Your task to perform on an android device: Add amazon basics triple a to the cart on ebay, then select checkout. Image 0: 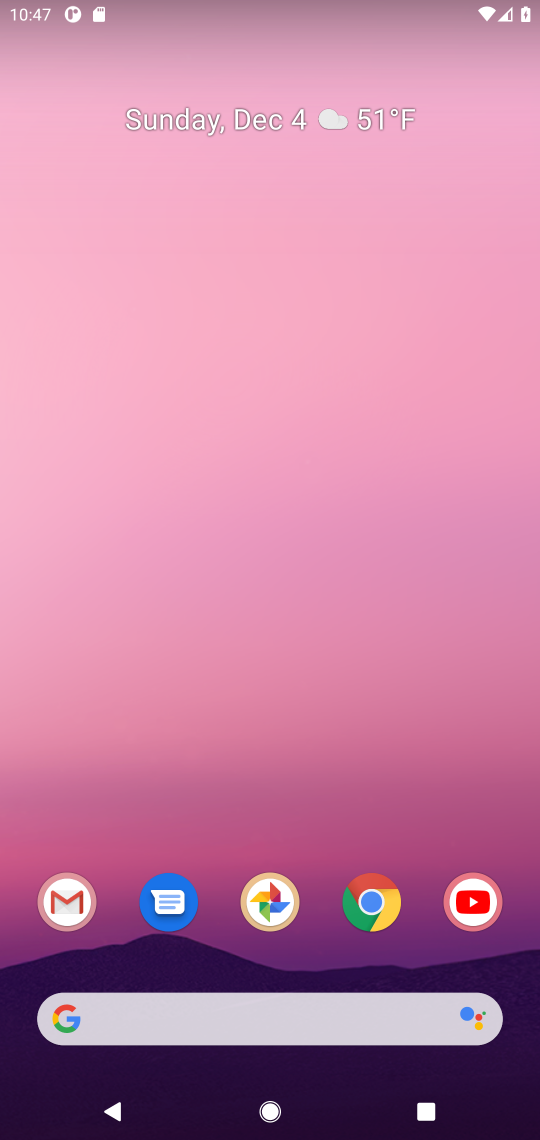
Step 0: click (357, 918)
Your task to perform on an android device: Add amazon basics triple a to the cart on ebay, then select checkout. Image 1: 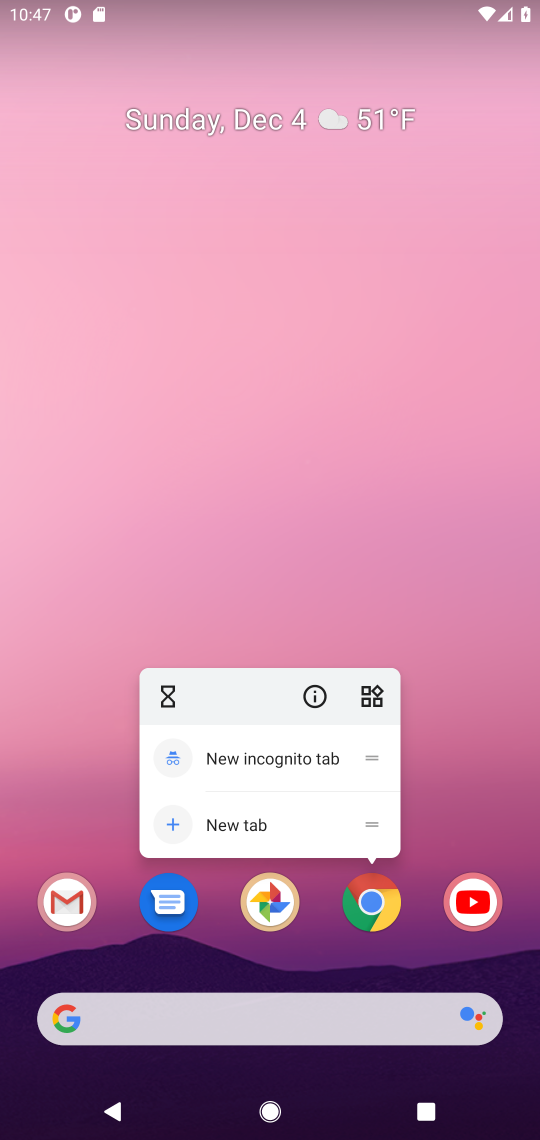
Step 1: click (382, 914)
Your task to perform on an android device: Add amazon basics triple a to the cart on ebay, then select checkout. Image 2: 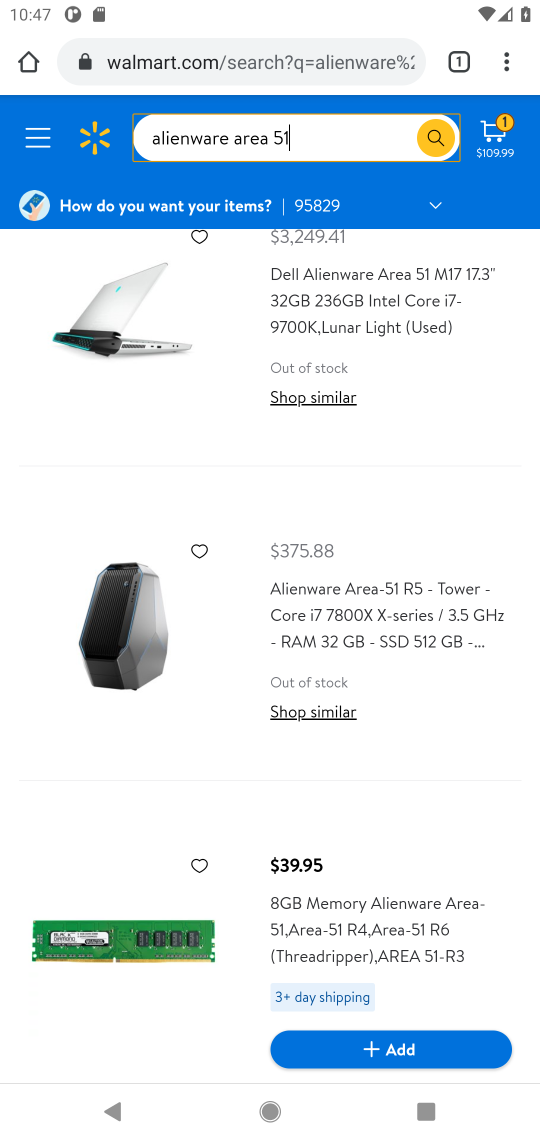
Step 2: click (212, 53)
Your task to perform on an android device: Add amazon basics triple a to the cart on ebay, then select checkout. Image 3: 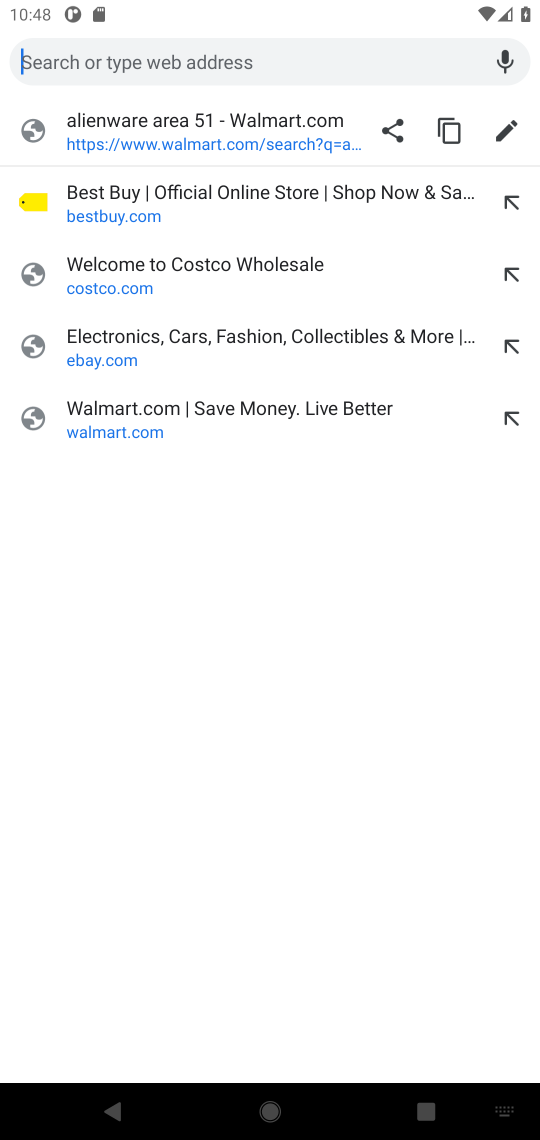
Step 3: click (102, 357)
Your task to perform on an android device: Add amazon basics triple a to the cart on ebay, then select checkout. Image 4: 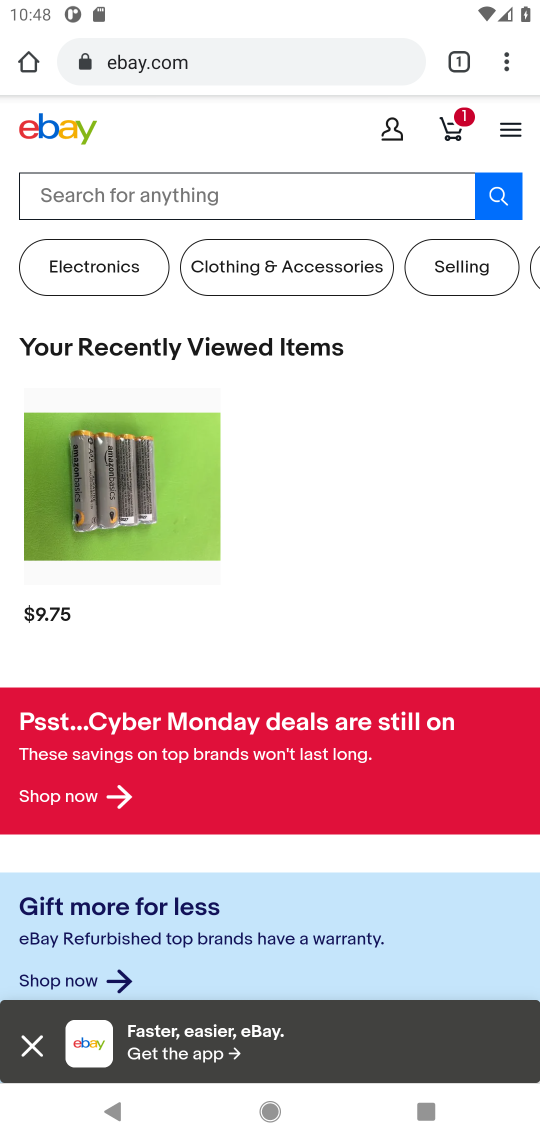
Step 4: click (329, 175)
Your task to perform on an android device: Add amazon basics triple a to the cart on ebay, then select checkout. Image 5: 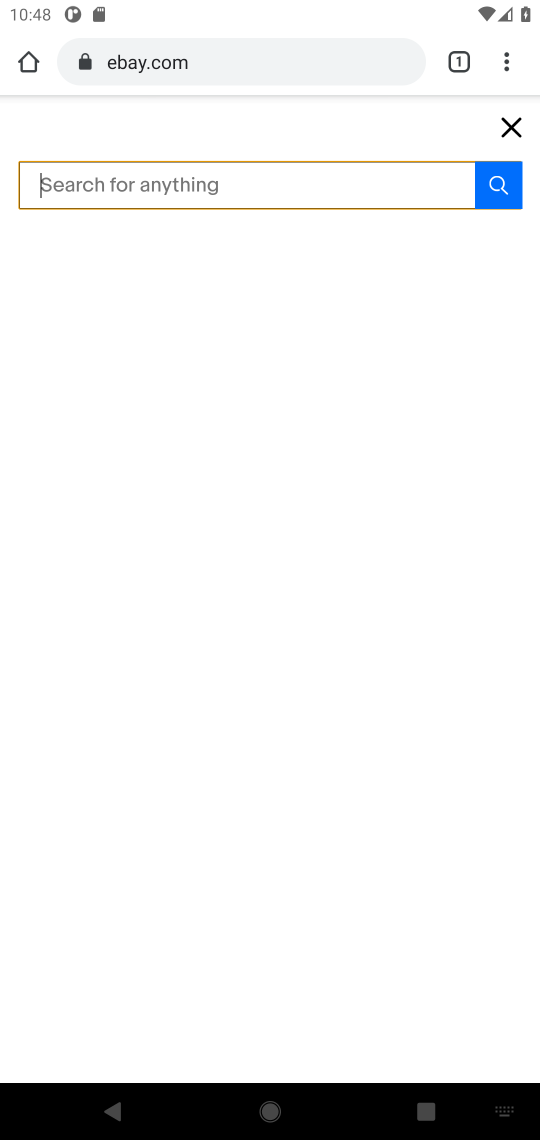
Step 5: type " amazon basics triple a "
Your task to perform on an android device: Add amazon basics triple a to the cart on ebay, then select checkout. Image 6: 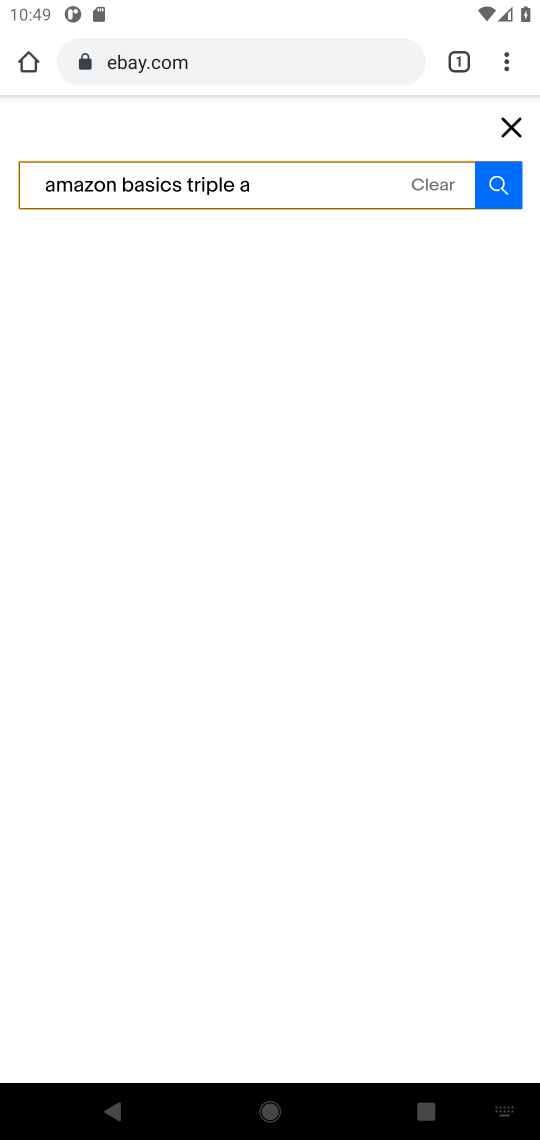
Step 6: click (478, 196)
Your task to perform on an android device: Add amazon basics triple a to the cart on ebay, then select checkout. Image 7: 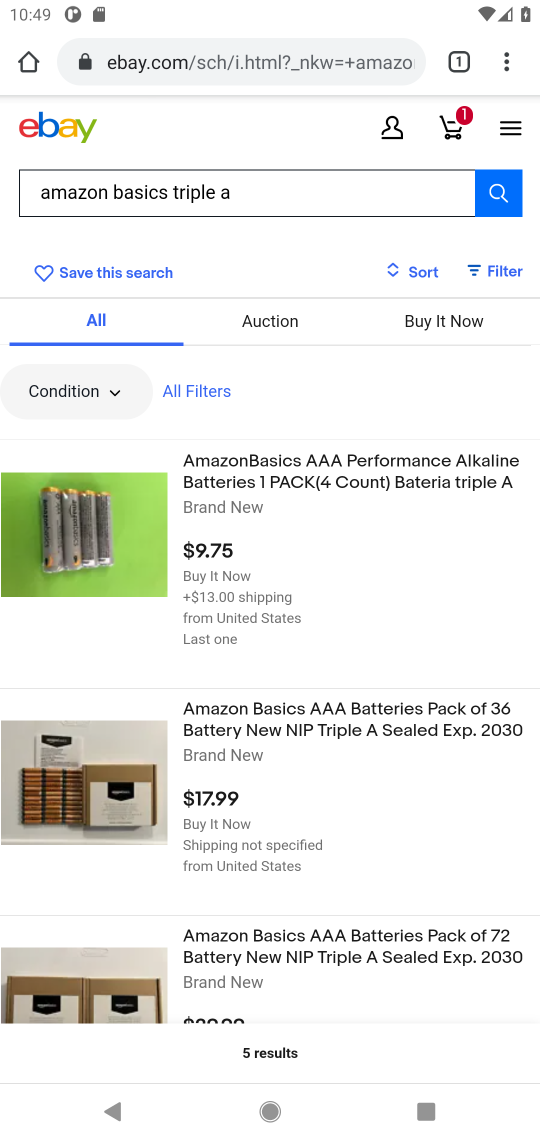
Step 7: click (481, 492)
Your task to perform on an android device: Add amazon basics triple a to the cart on ebay, then select checkout. Image 8: 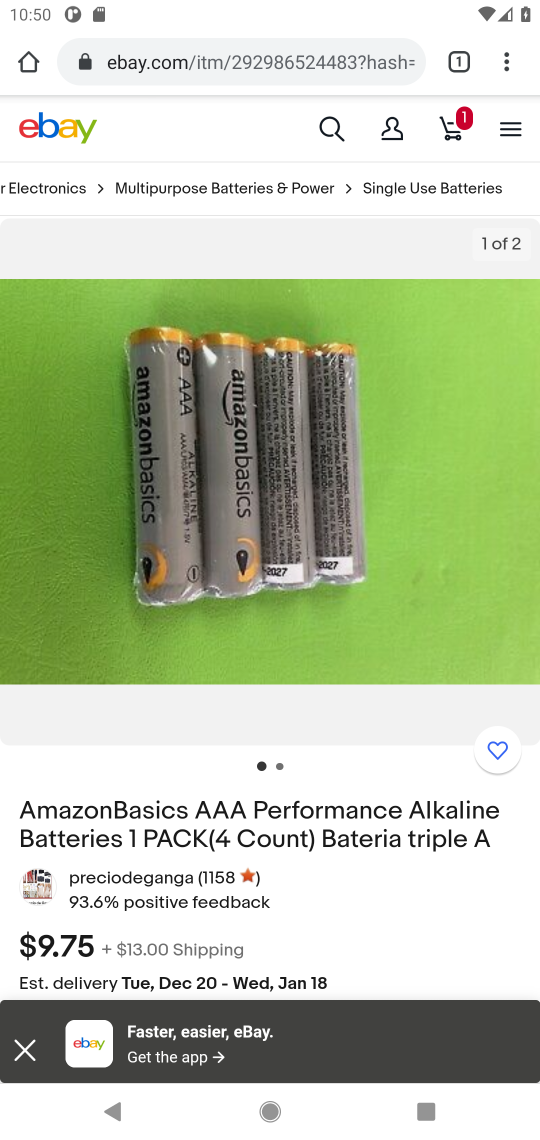
Step 8: drag from (368, 882) to (369, 240)
Your task to perform on an android device: Add amazon basics triple a to the cart on ebay, then select checkout. Image 9: 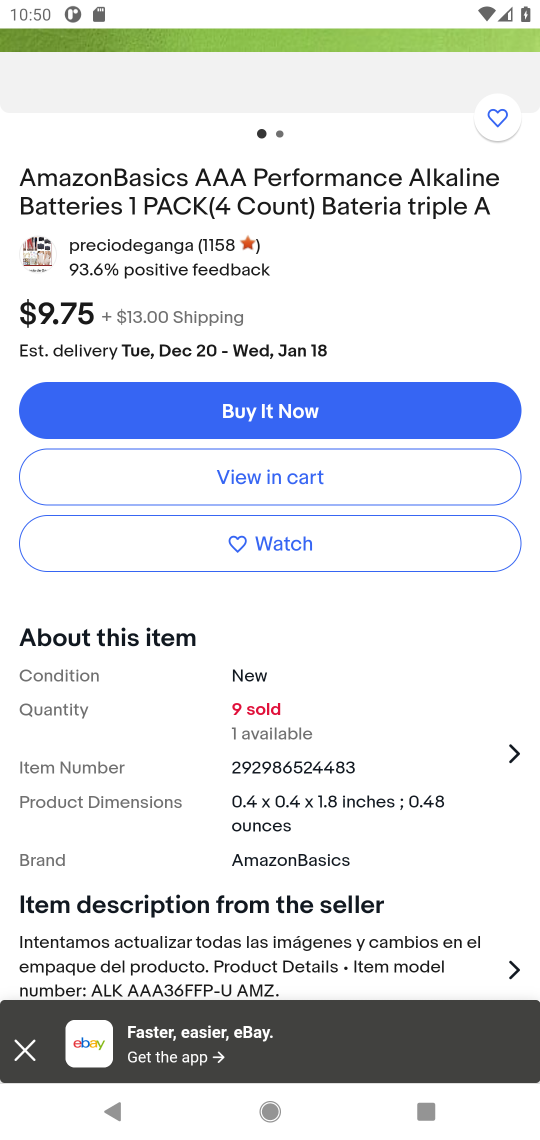
Step 9: drag from (356, 608) to (339, 255)
Your task to perform on an android device: Add amazon basics triple a to the cart on ebay, then select checkout. Image 10: 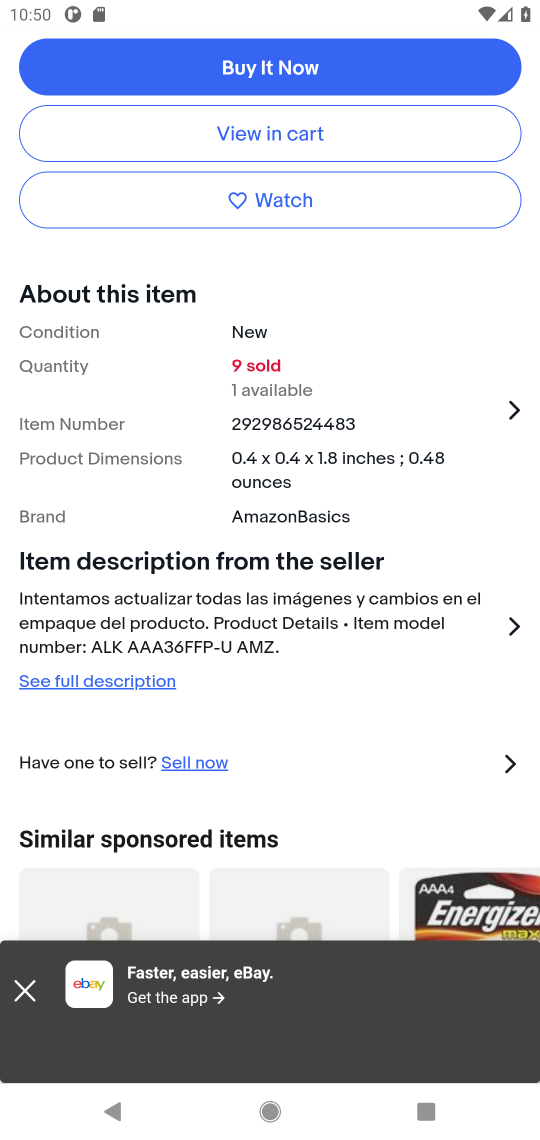
Step 10: click (312, 127)
Your task to perform on an android device: Add amazon basics triple a to the cart on ebay, then select checkout. Image 11: 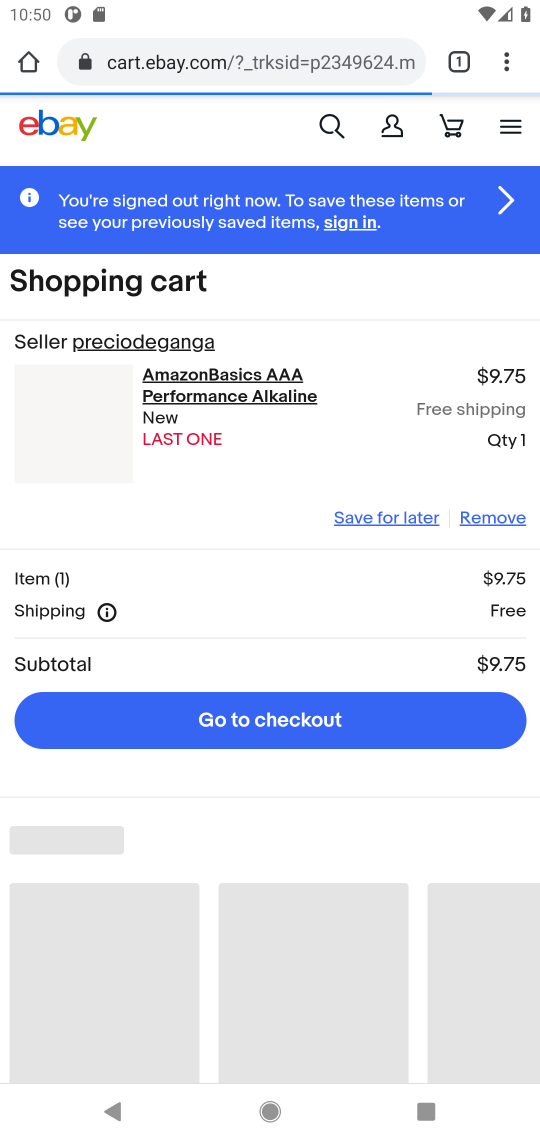
Step 11: click (312, 127)
Your task to perform on an android device: Add amazon basics triple a to the cart on ebay, then select checkout. Image 12: 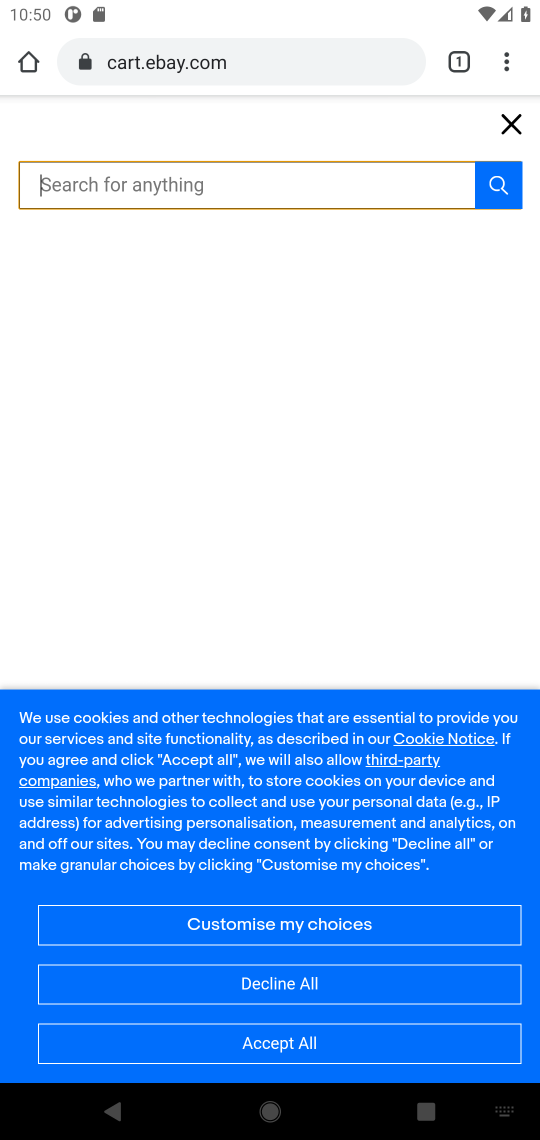
Step 12: click (503, 131)
Your task to perform on an android device: Add amazon basics triple a to the cart on ebay, then select checkout. Image 13: 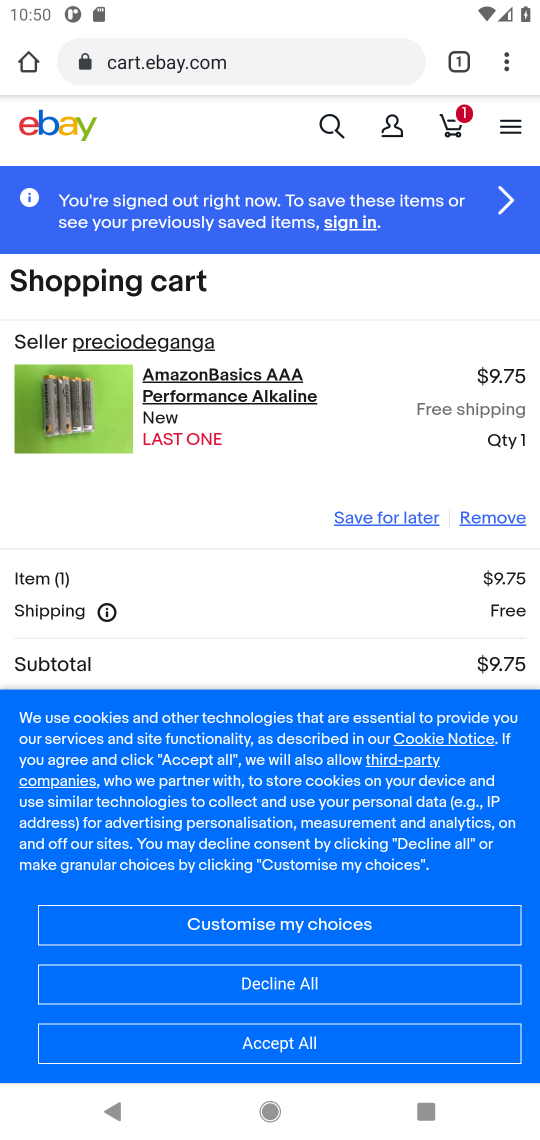
Step 13: click (503, 131)
Your task to perform on an android device: Add amazon basics triple a to the cart on ebay, then select checkout. Image 14: 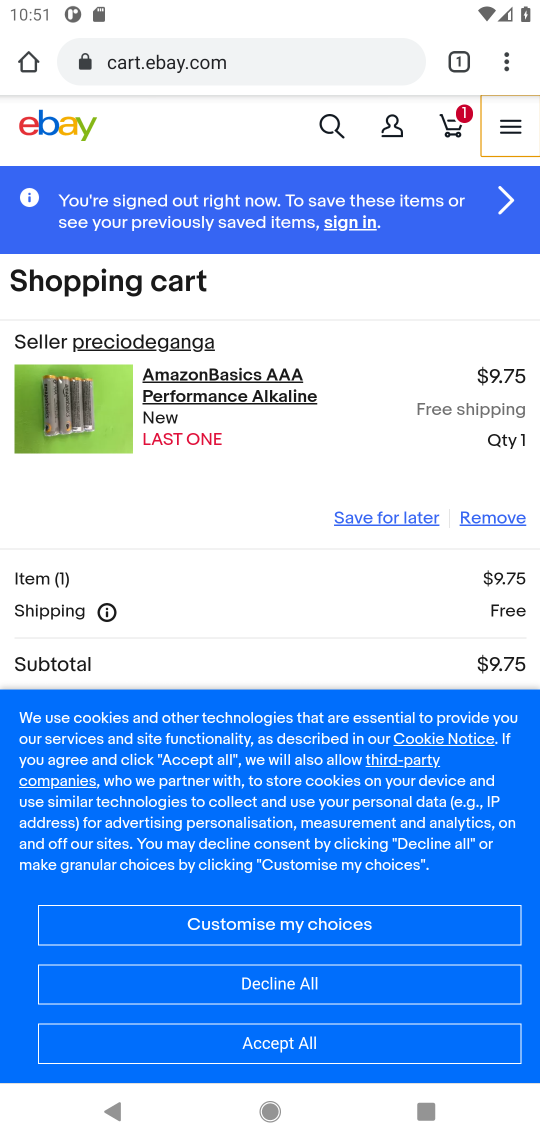
Step 14: click (506, 515)
Your task to perform on an android device: Add amazon basics triple a to the cart on ebay, then select checkout. Image 15: 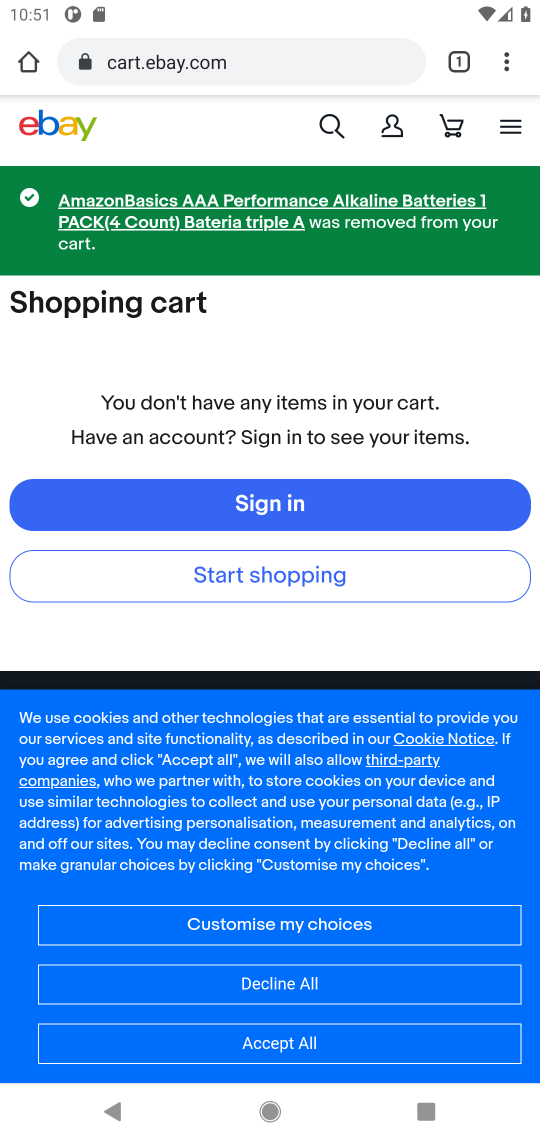
Step 15: task complete